Your task to perform on an android device: make emails show in primary in the gmail app Image 0: 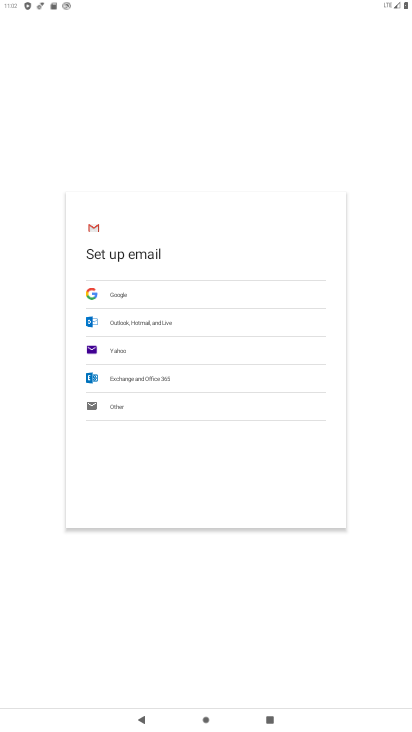
Step 0: press home button
Your task to perform on an android device: make emails show in primary in the gmail app Image 1: 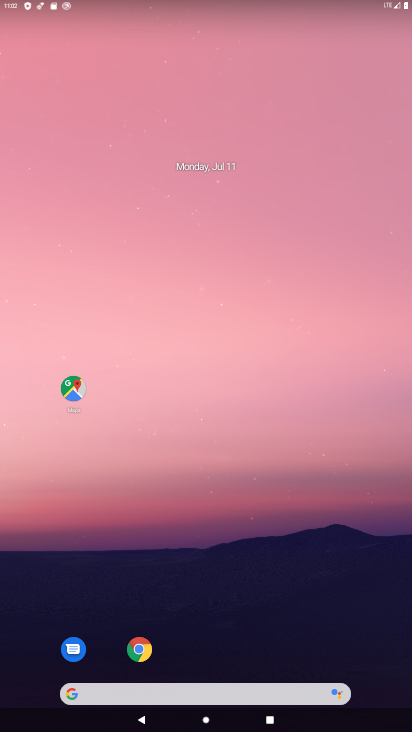
Step 1: drag from (304, 584) to (247, 122)
Your task to perform on an android device: make emails show in primary in the gmail app Image 2: 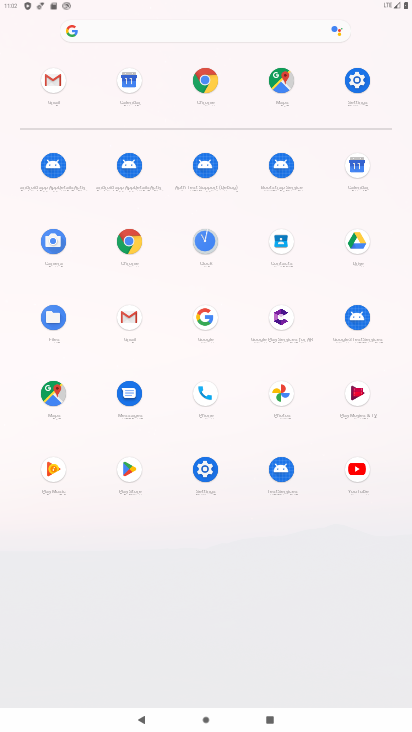
Step 2: click (54, 78)
Your task to perform on an android device: make emails show in primary in the gmail app Image 3: 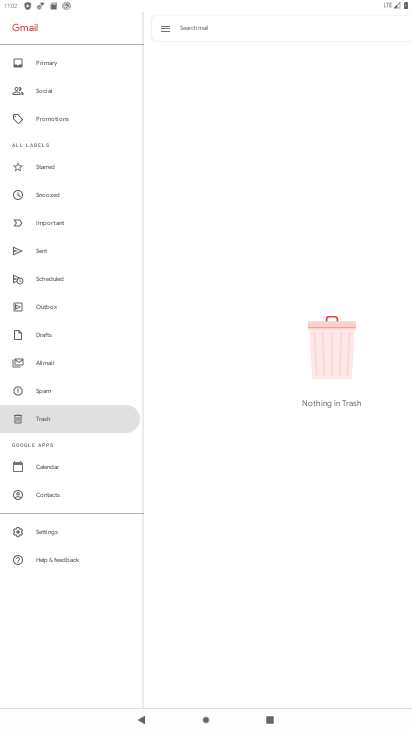
Step 3: click (43, 533)
Your task to perform on an android device: make emails show in primary in the gmail app Image 4: 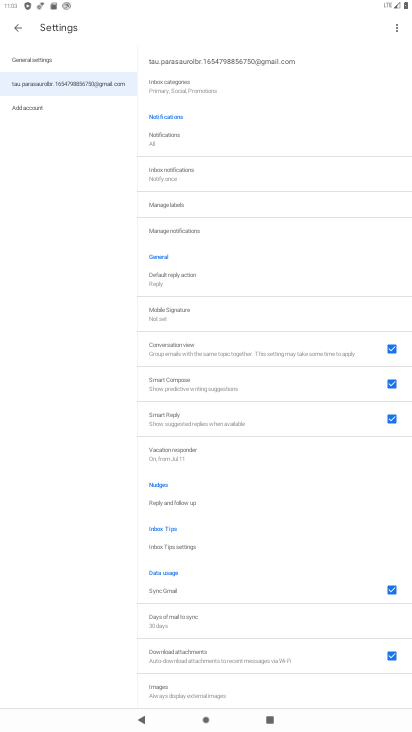
Step 4: drag from (200, 180) to (241, 572)
Your task to perform on an android device: make emails show in primary in the gmail app Image 5: 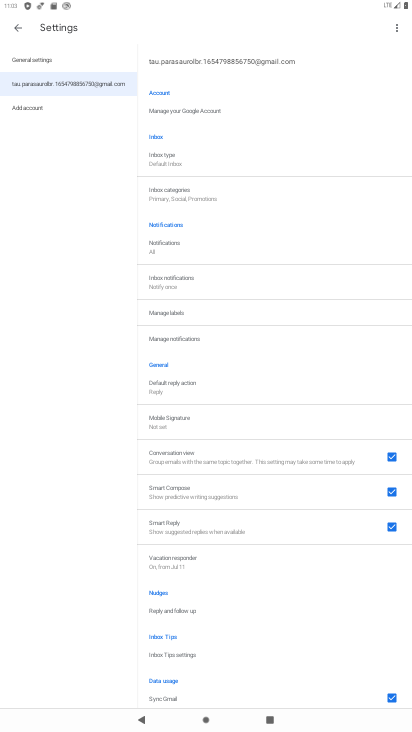
Step 5: click (184, 189)
Your task to perform on an android device: make emails show in primary in the gmail app Image 6: 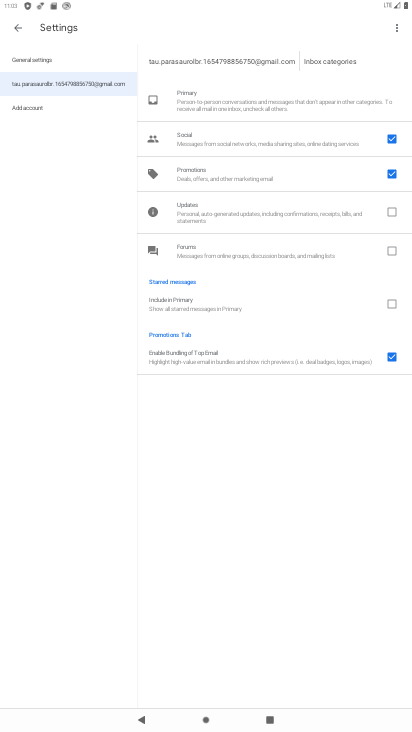
Step 6: task complete